Your task to perform on an android device: turn off data saver in the chrome app Image 0: 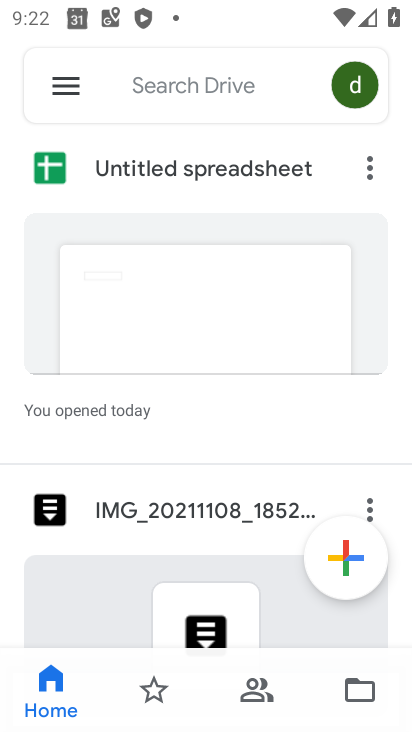
Step 0: press back button
Your task to perform on an android device: turn off data saver in the chrome app Image 1: 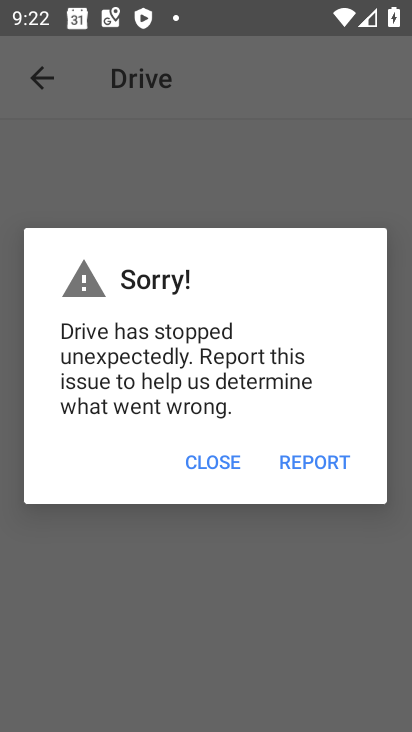
Step 1: press back button
Your task to perform on an android device: turn off data saver in the chrome app Image 2: 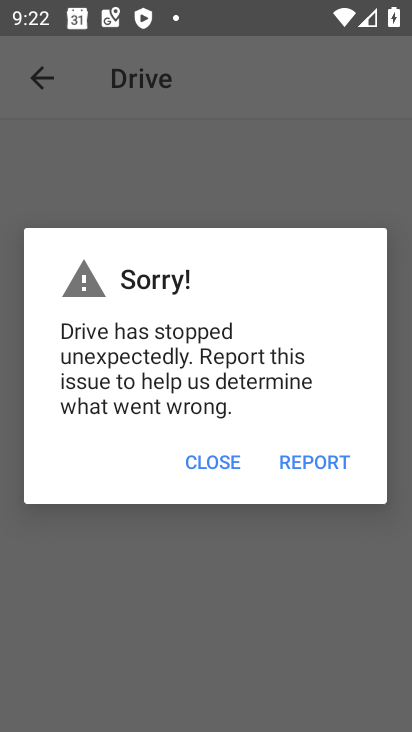
Step 2: press home button
Your task to perform on an android device: turn off data saver in the chrome app Image 3: 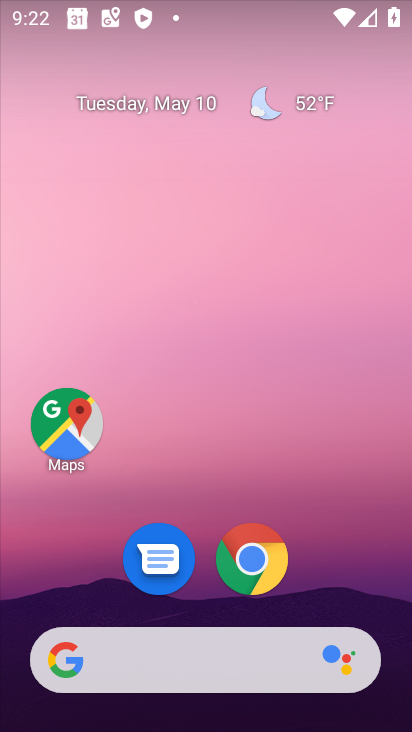
Step 3: drag from (335, 591) to (311, 33)
Your task to perform on an android device: turn off data saver in the chrome app Image 4: 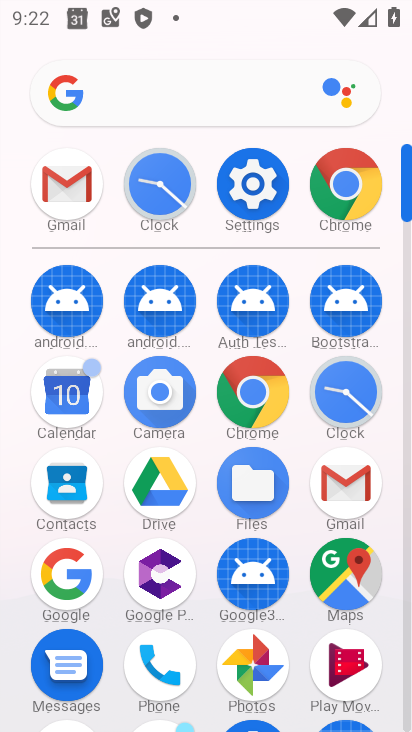
Step 4: click (344, 180)
Your task to perform on an android device: turn off data saver in the chrome app Image 5: 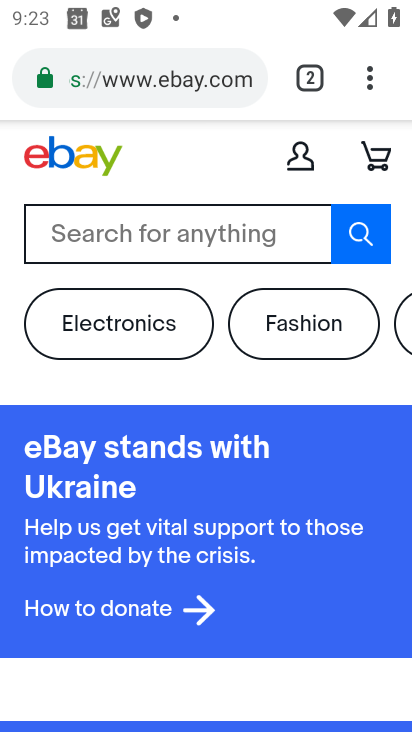
Step 5: drag from (367, 74) to (122, 624)
Your task to perform on an android device: turn off data saver in the chrome app Image 6: 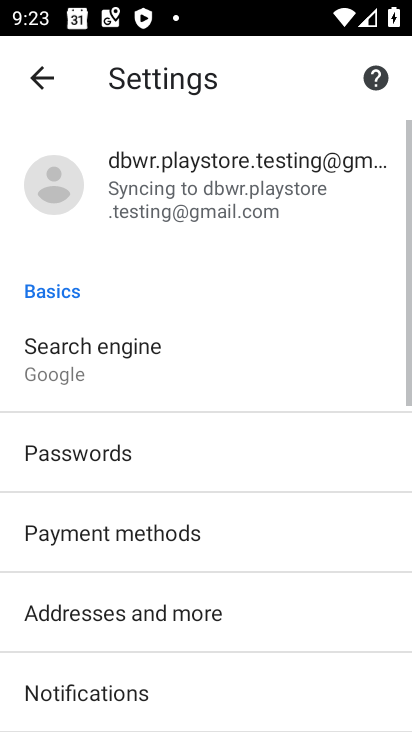
Step 6: drag from (274, 600) to (246, 164)
Your task to perform on an android device: turn off data saver in the chrome app Image 7: 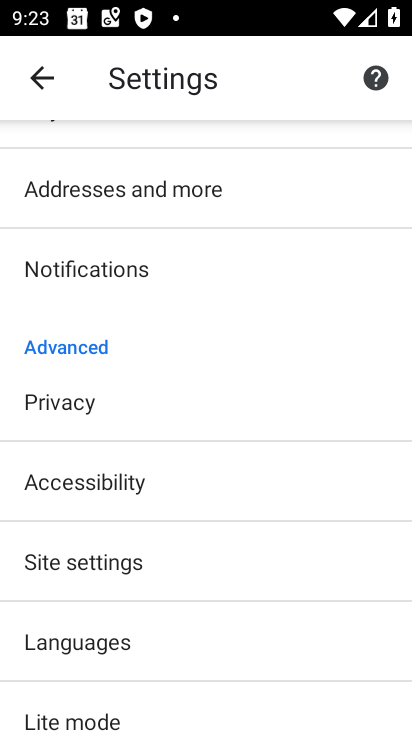
Step 7: drag from (194, 655) to (229, 204)
Your task to perform on an android device: turn off data saver in the chrome app Image 8: 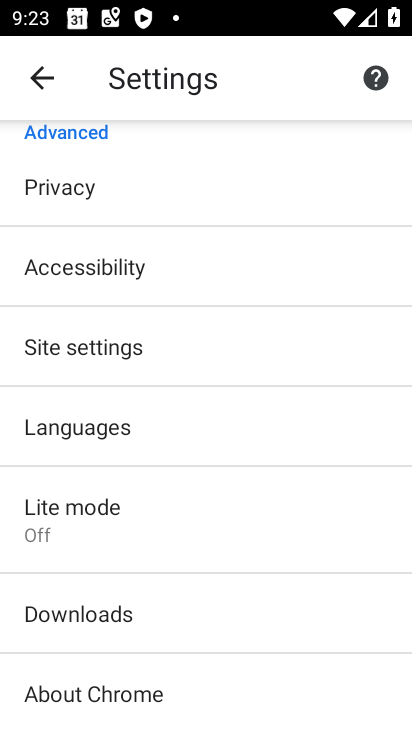
Step 8: click (153, 349)
Your task to perform on an android device: turn off data saver in the chrome app Image 9: 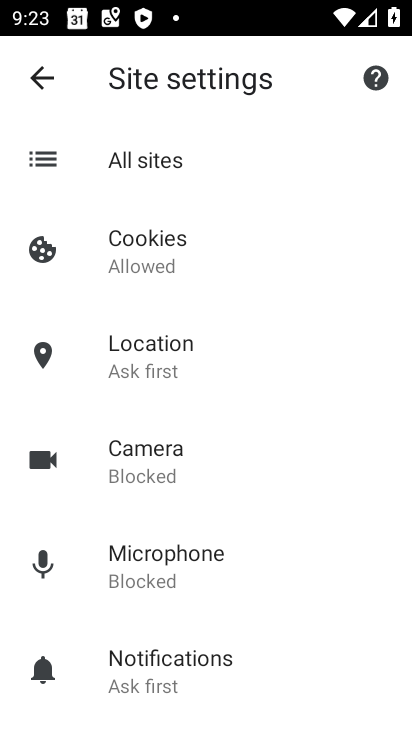
Step 9: drag from (267, 523) to (260, 211)
Your task to perform on an android device: turn off data saver in the chrome app Image 10: 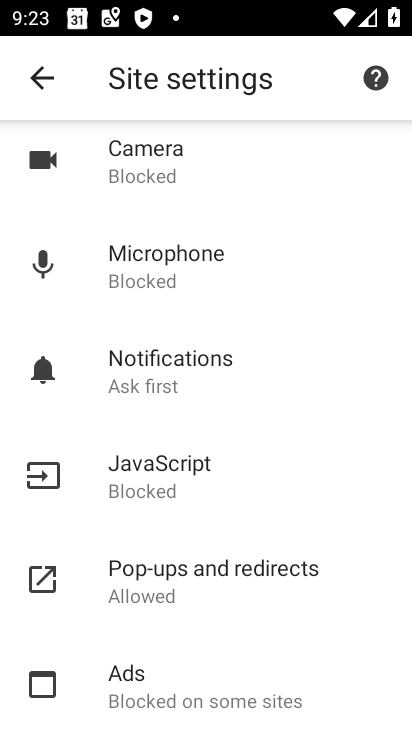
Step 10: click (31, 71)
Your task to perform on an android device: turn off data saver in the chrome app Image 11: 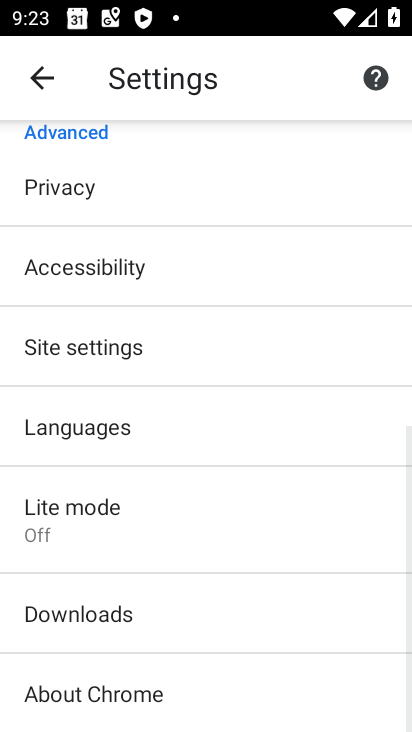
Step 11: click (177, 532)
Your task to perform on an android device: turn off data saver in the chrome app Image 12: 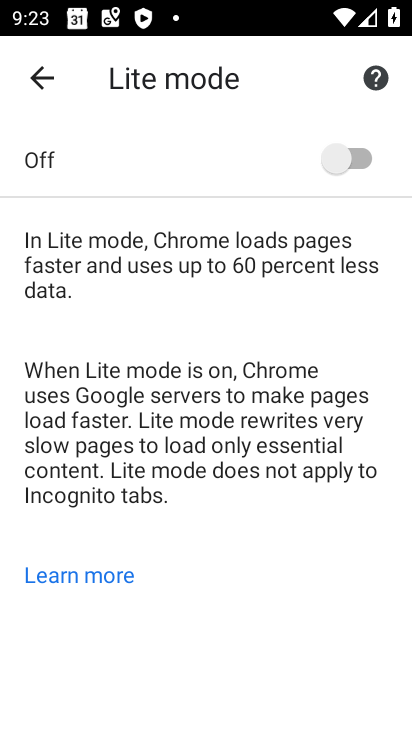
Step 12: task complete